Your task to perform on an android device: Open Chrome and go to settings Image 0: 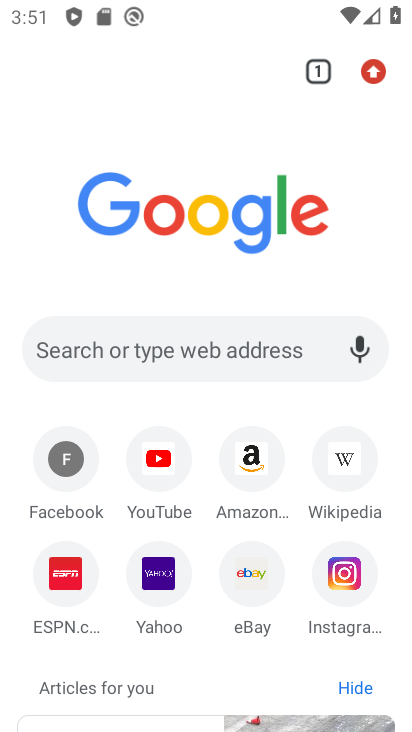
Step 0: click (379, 72)
Your task to perform on an android device: Open Chrome and go to settings Image 1: 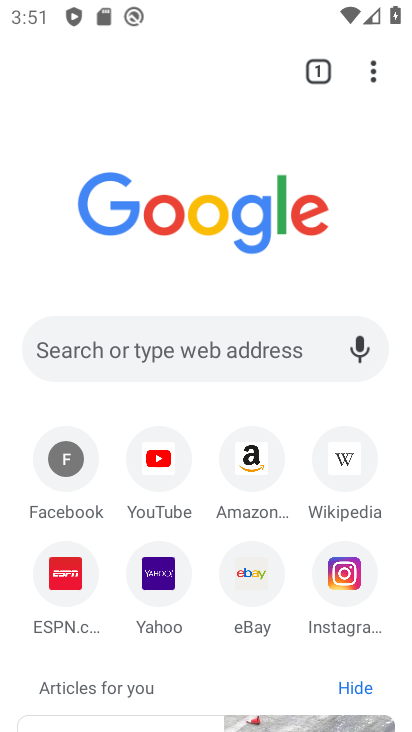
Step 1: click (366, 69)
Your task to perform on an android device: Open Chrome and go to settings Image 2: 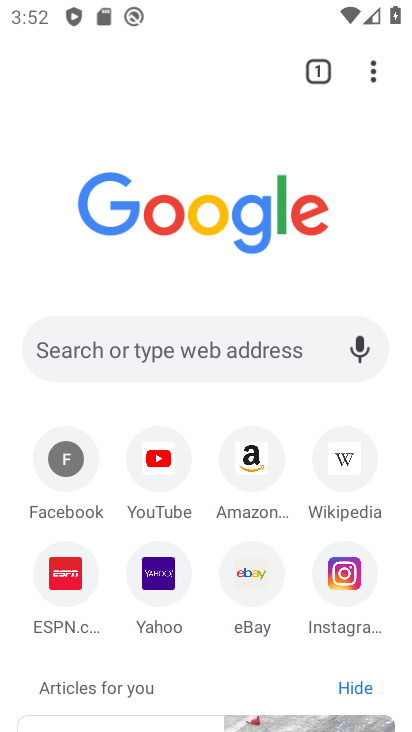
Step 2: click (369, 66)
Your task to perform on an android device: Open Chrome and go to settings Image 3: 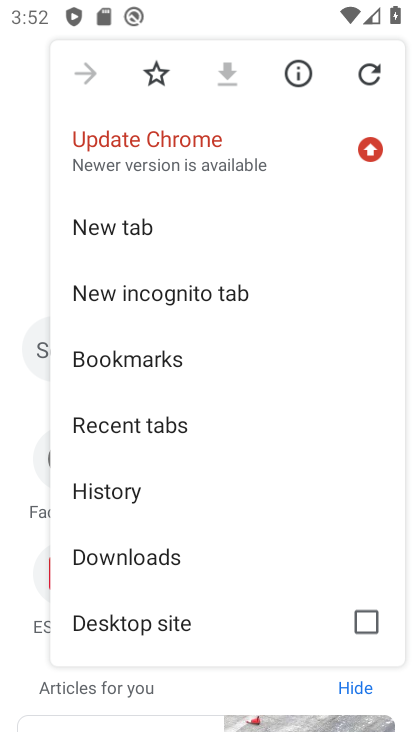
Step 3: drag from (233, 604) to (237, 212)
Your task to perform on an android device: Open Chrome and go to settings Image 4: 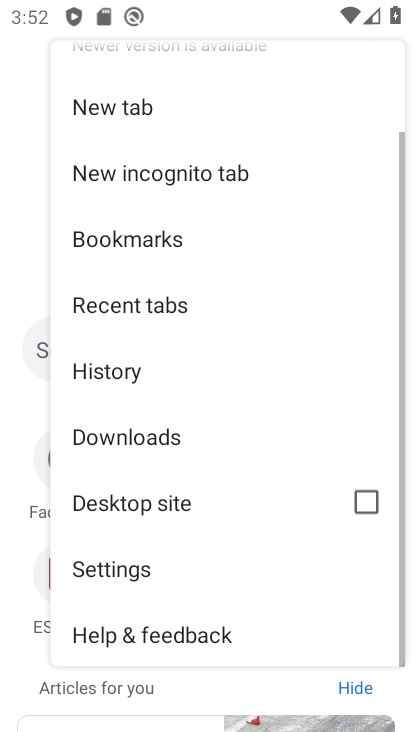
Step 4: click (123, 567)
Your task to perform on an android device: Open Chrome and go to settings Image 5: 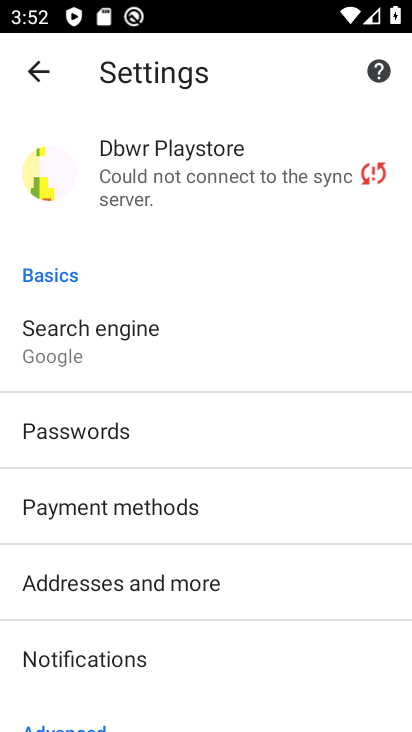
Step 5: task complete